Your task to perform on an android device: Open internet settings Image 0: 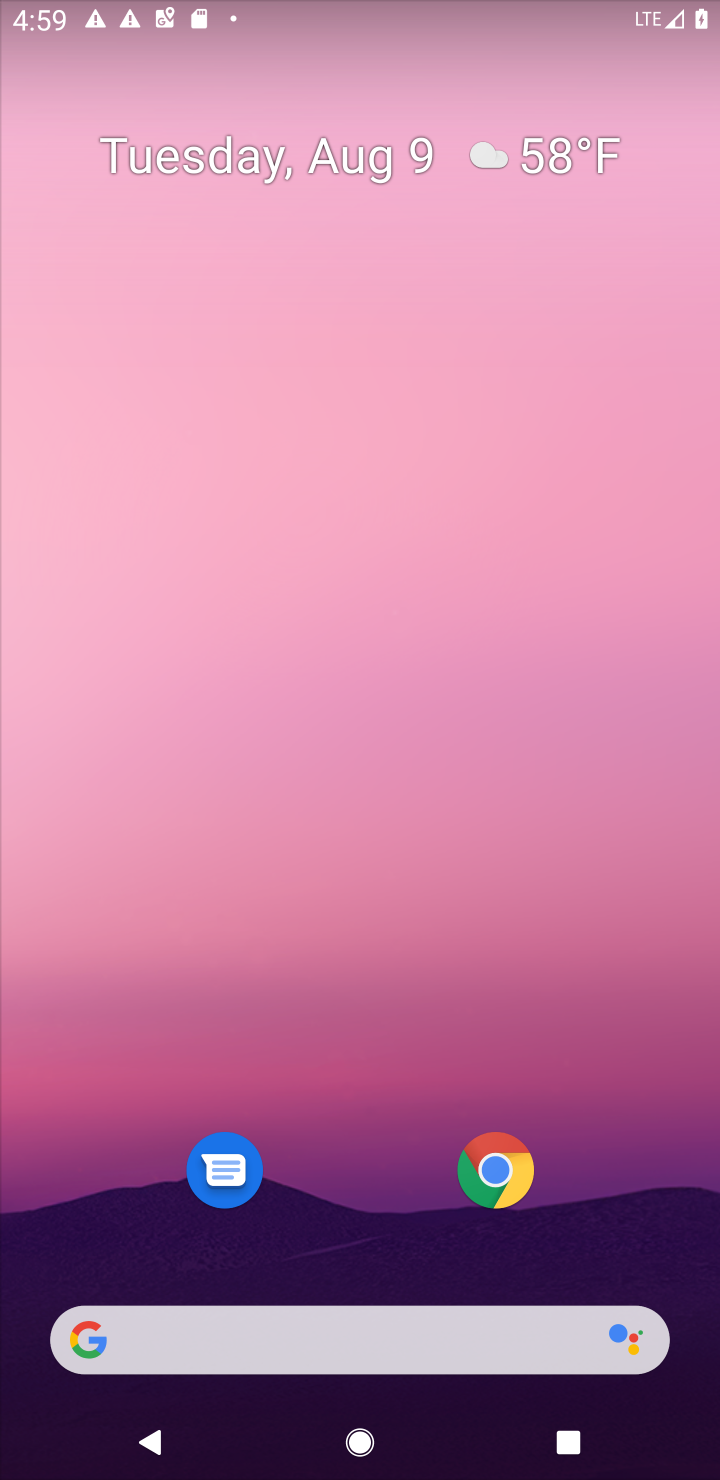
Step 0: press home button
Your task to perform on an android device: Open internet settings Image 1: 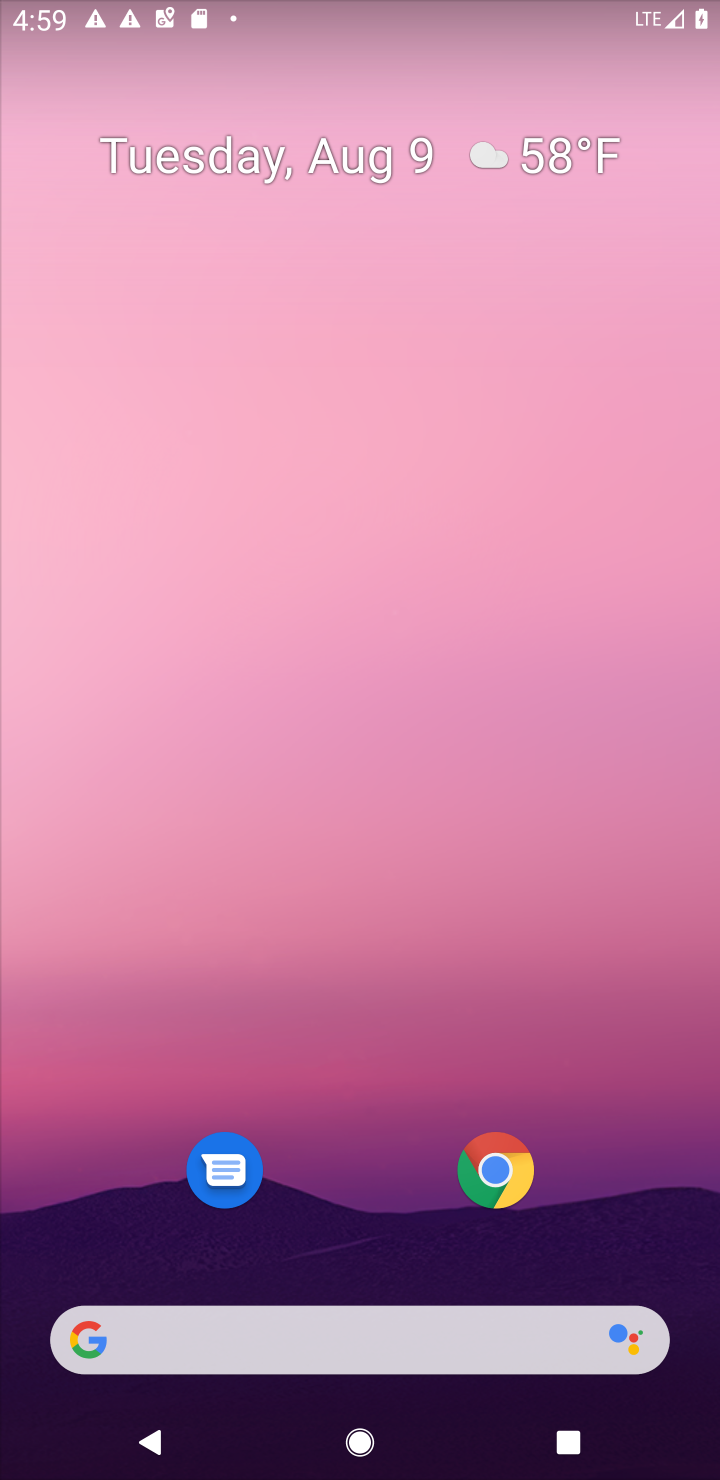
Step 1: drag from (374, 1257) to (492, 200)
Your task to perform on an android device: Open internet settings Image 2: 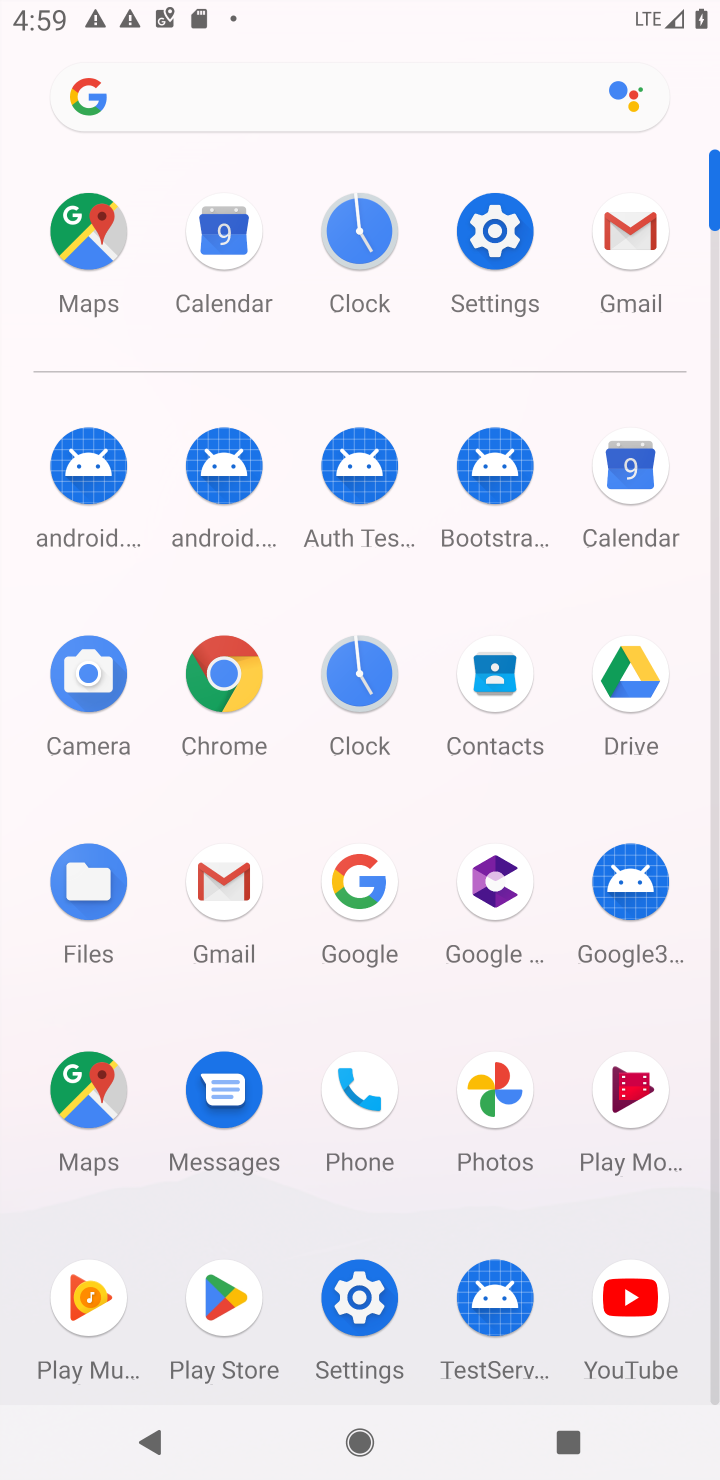
Step 2: click (509, 220)
Your task to perform on an android device: Open internet settings Image 3: 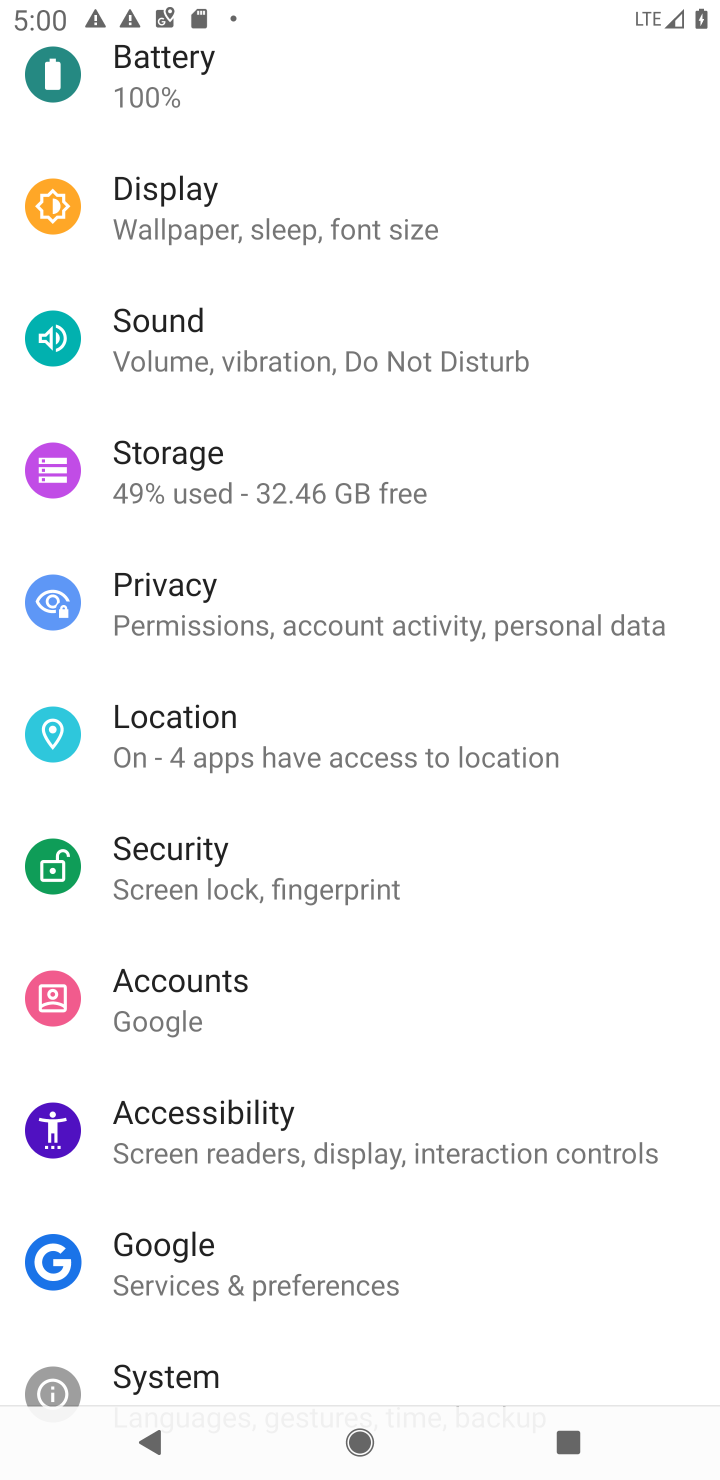
Step 3: drag from (248, 127) to (259, 853)
Your task to perform on an android device: Open internet settings Image 4: 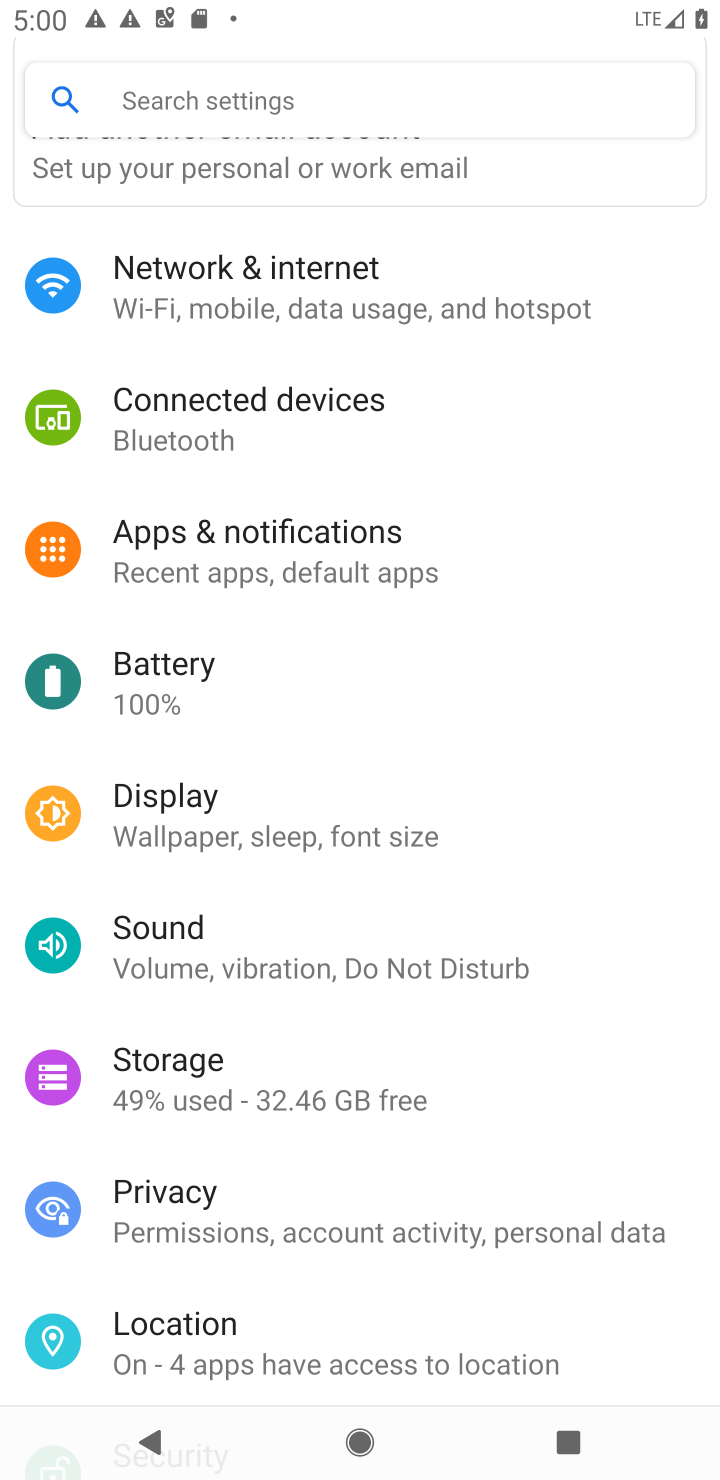
Step 4: click (233, 267)
Your task to perform on an android device: Open internet settings Image 5: 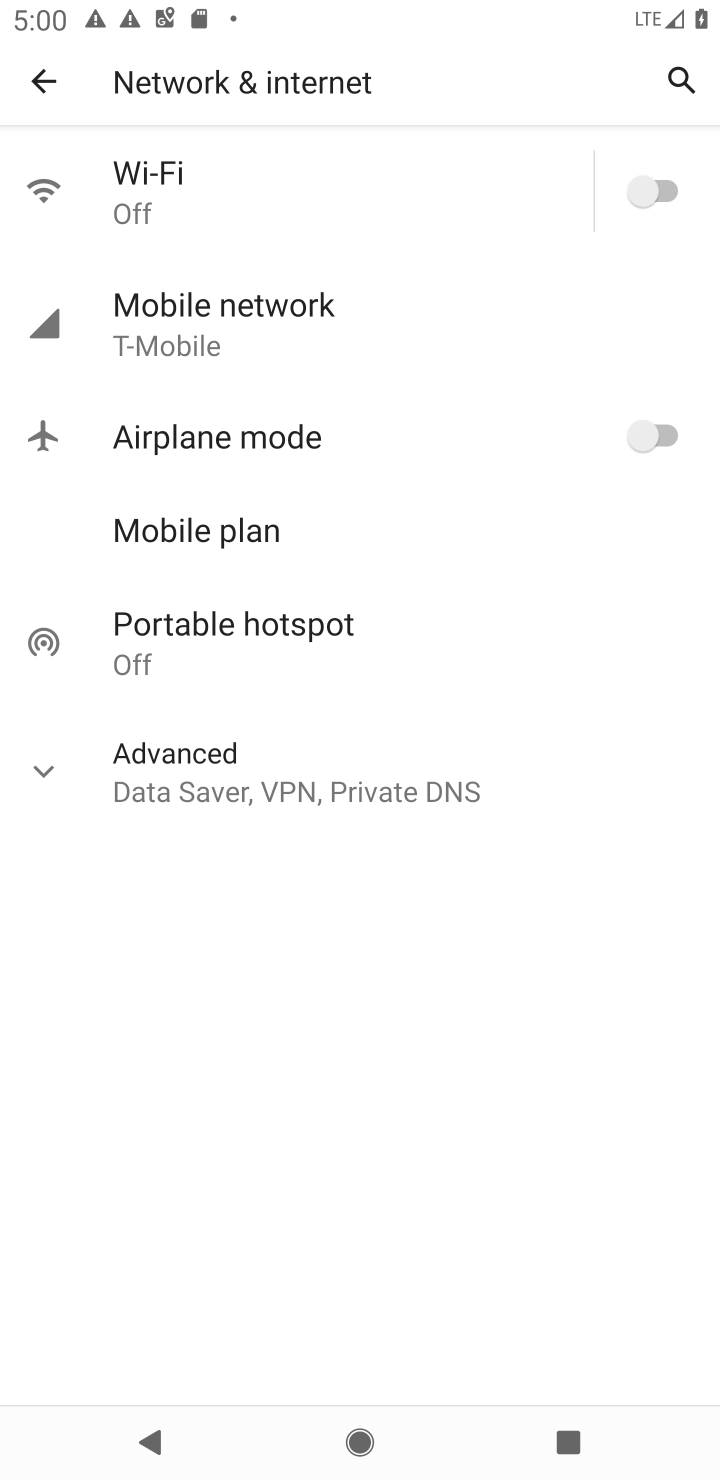
Step 5: task complete